Your task to perform on an android device: Clear the shopping cart on amazon.com. Add "sony triple a" to the cart on amazon.com Image 0: 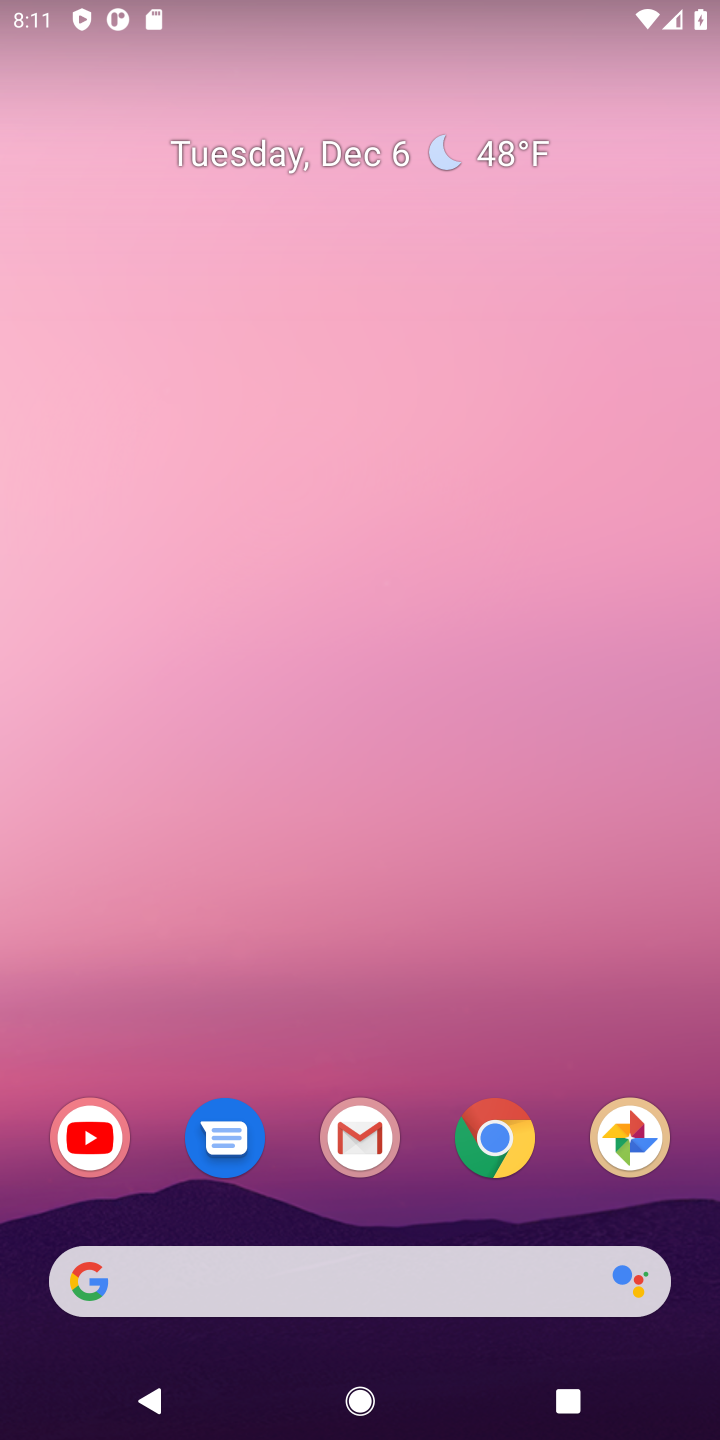
Step 0: click (497, 1137)
Your task to perform on an android device: Clear the shopping cart on amazon.com. Add "sony triple a" to the cart on amazon.com Image 1: 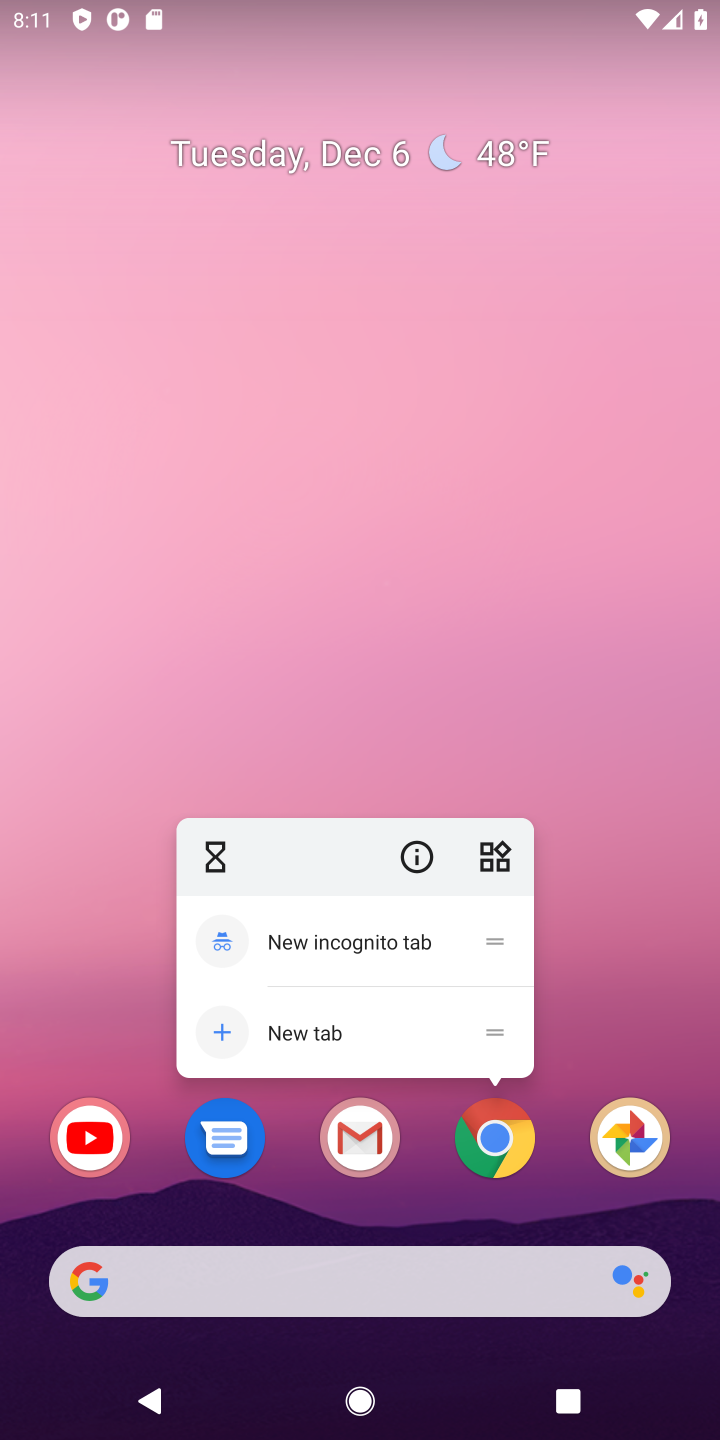
Step 1: click (497, 1146)
Your task to perform on an android device: Clear the shopping cart on amazon.com. Add "sony triple a" to the cart on amazon.com Image 2: 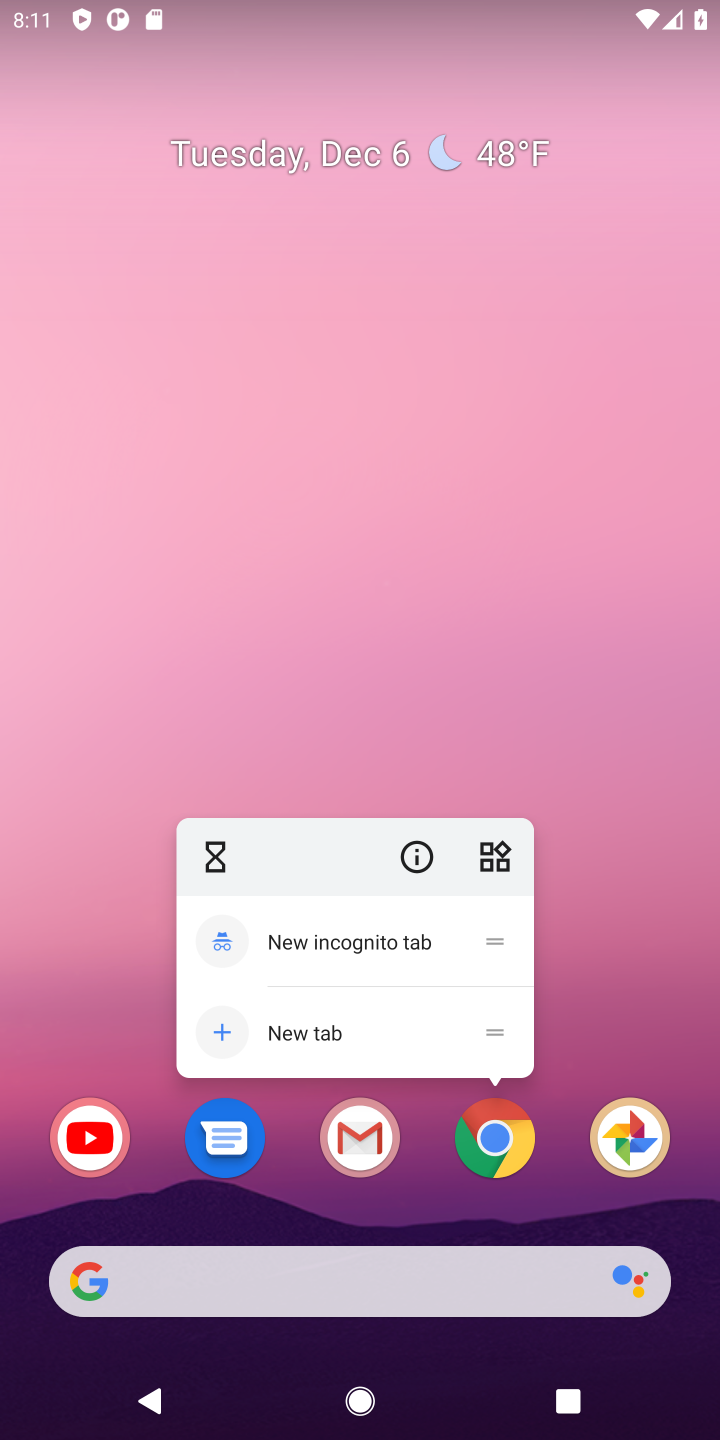
Step 2: click (505, 1152)
Your task to perform on an android device: Clear the shopping cart on amazon.com. Add "sony triple a" to the cart on amazon.com Image 3: 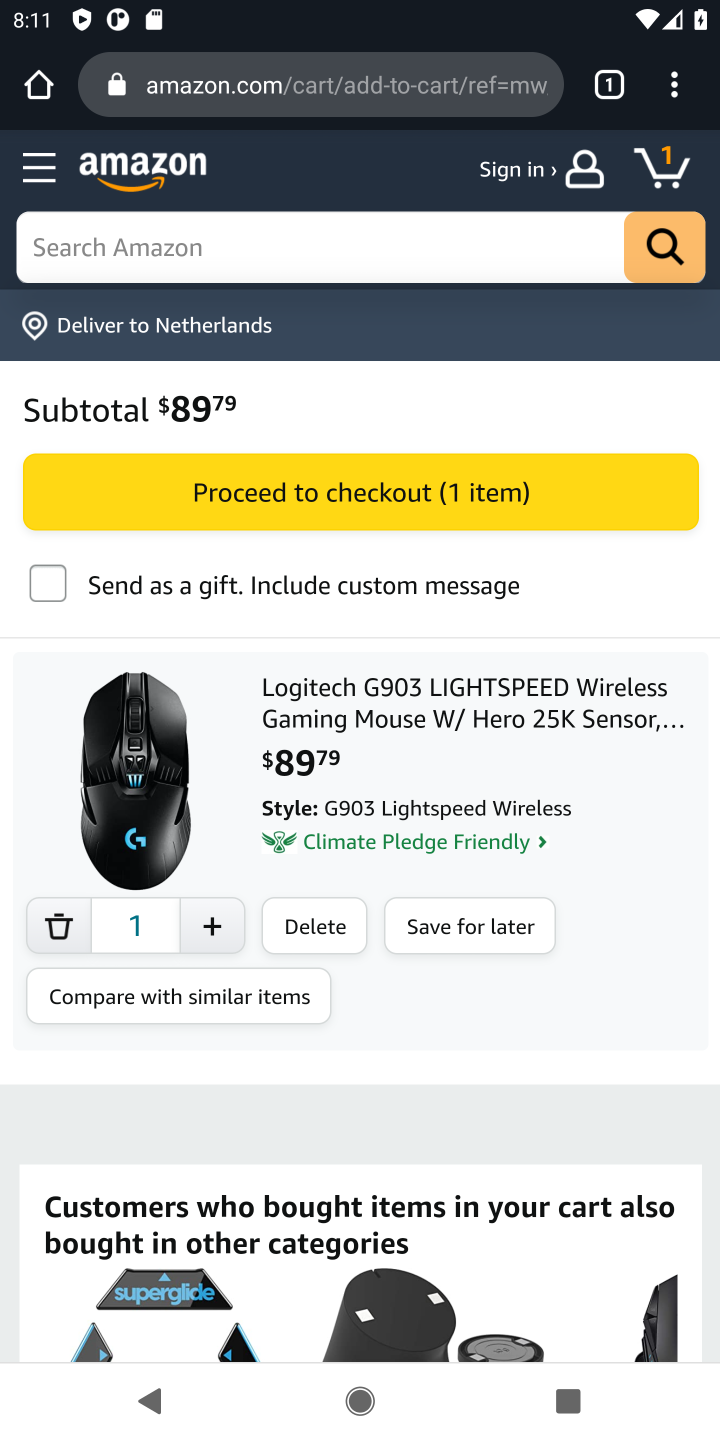
Step 3: click (317, 926)
Your task to perform on an android device: Clear the shopping cart on amazon.com. Add "sony triple a" to the cart on amazon.com Image 4: 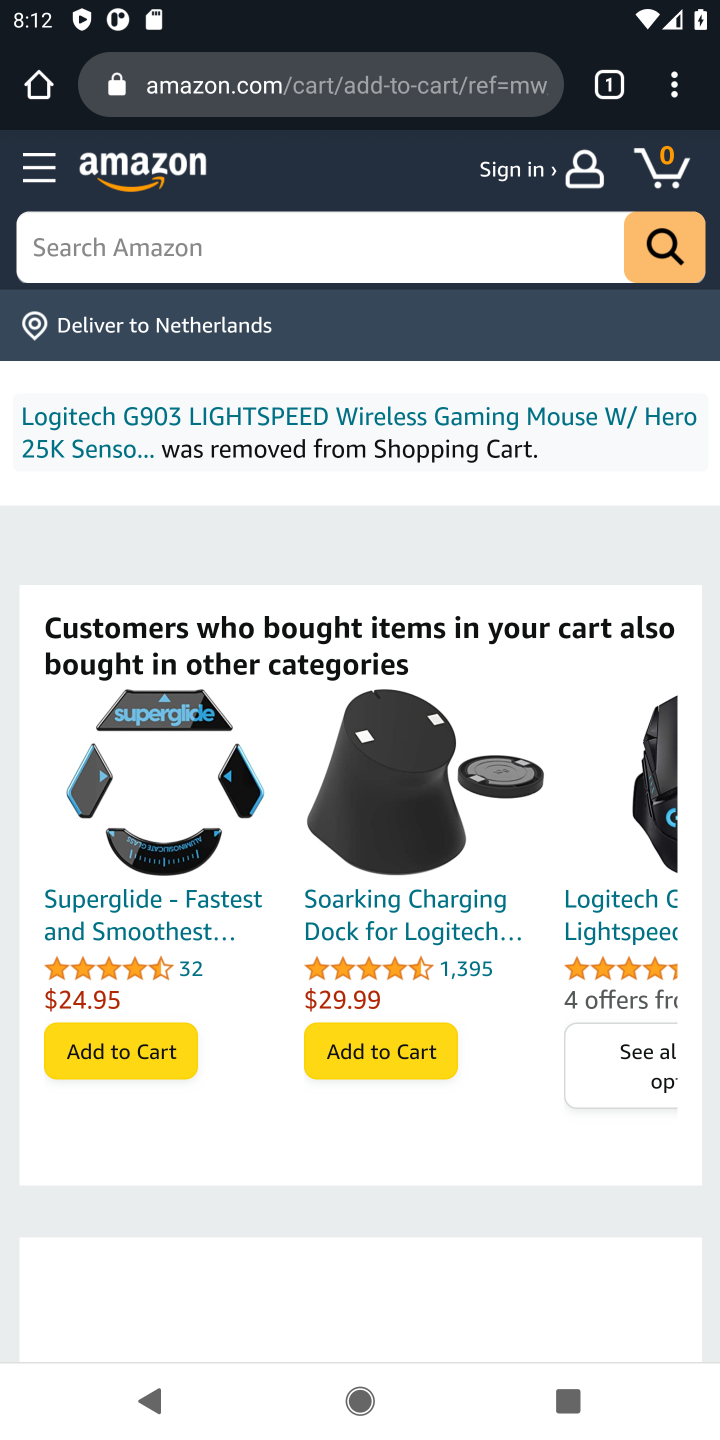
Step 4: click (224, 263)
Your task to perform on an android device: Clear the shopping cart on amazon.com. Add "sony triple a" to the cart on amazon.com Image 5: 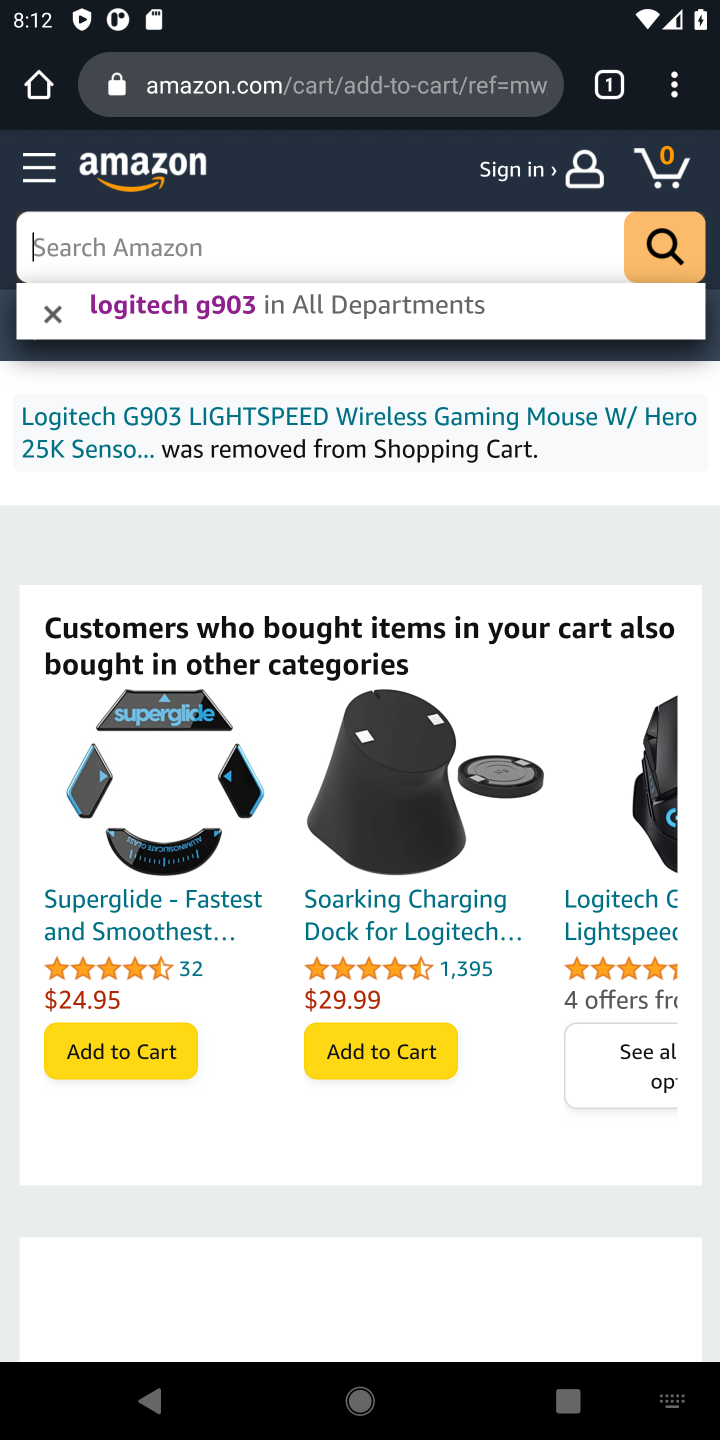
Step 5: type "sony triple a"
Your task to perform on an android device: Clear the shopping cart on amazon.com. Add "sony triple a" to the cart on amazon.com Image 6: 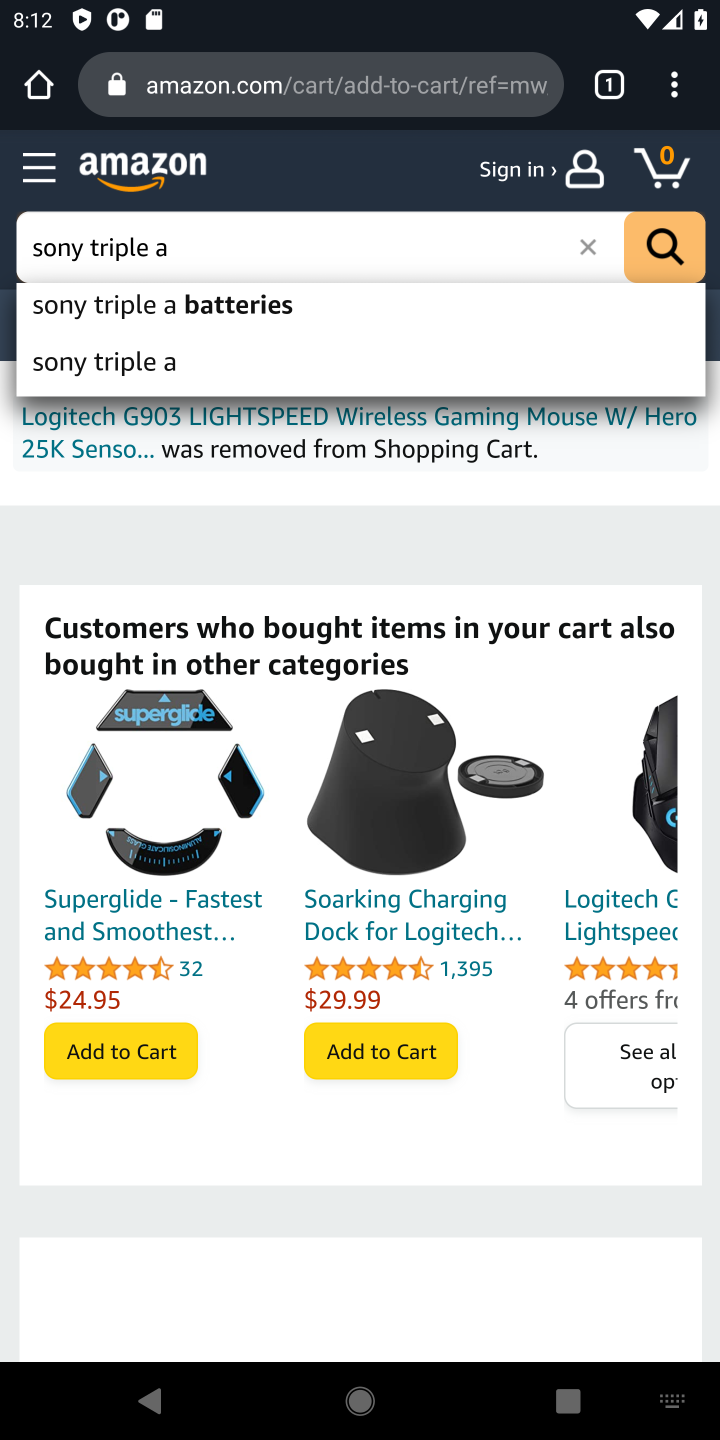
Step 6: click (175, 305)
Your task to perform on an android device: Clear the shopping cart on amazon.com. Add "sony triple a" to the cart on amazon.com Image 7: 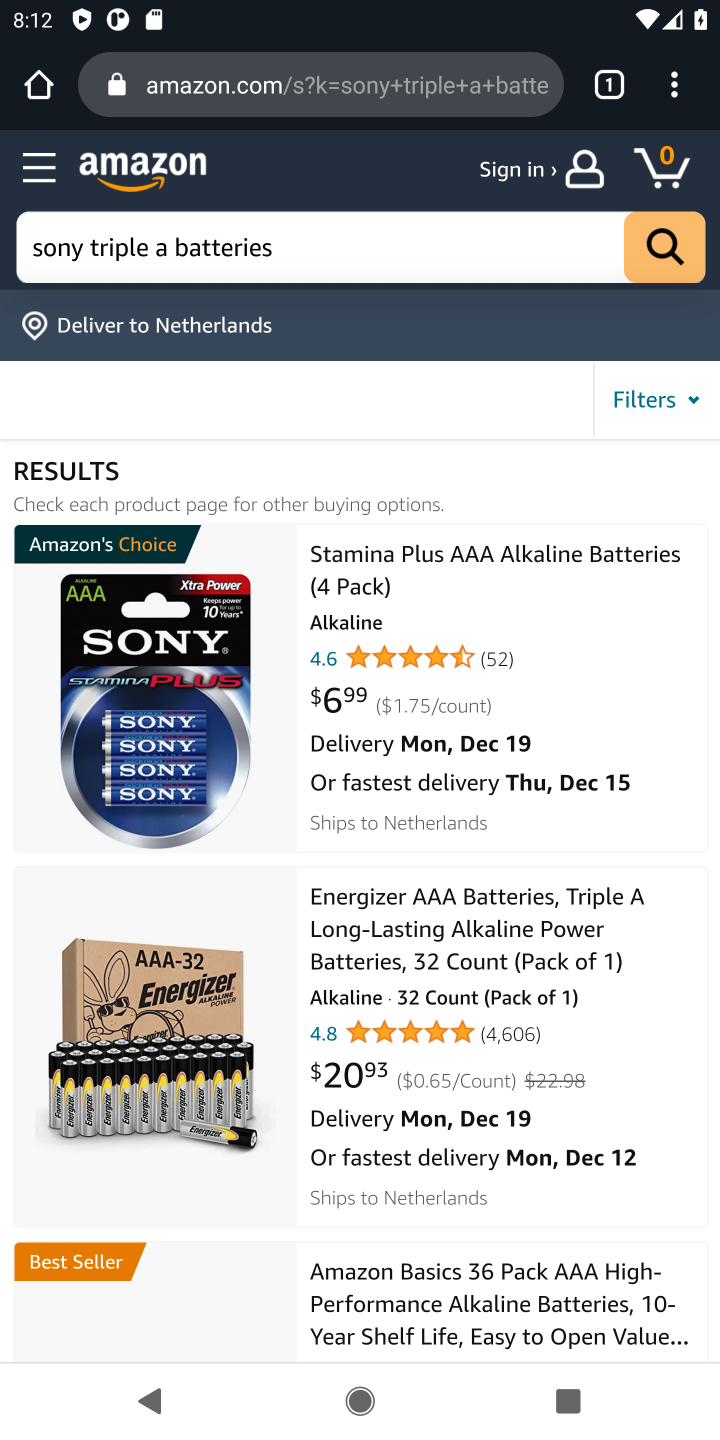
Step 7: click (395, 589)
Your task to perform on an android device: Clear the shopping cart on amazon.com. Add "sony triple a" to the cart on amazon.com Image 8: 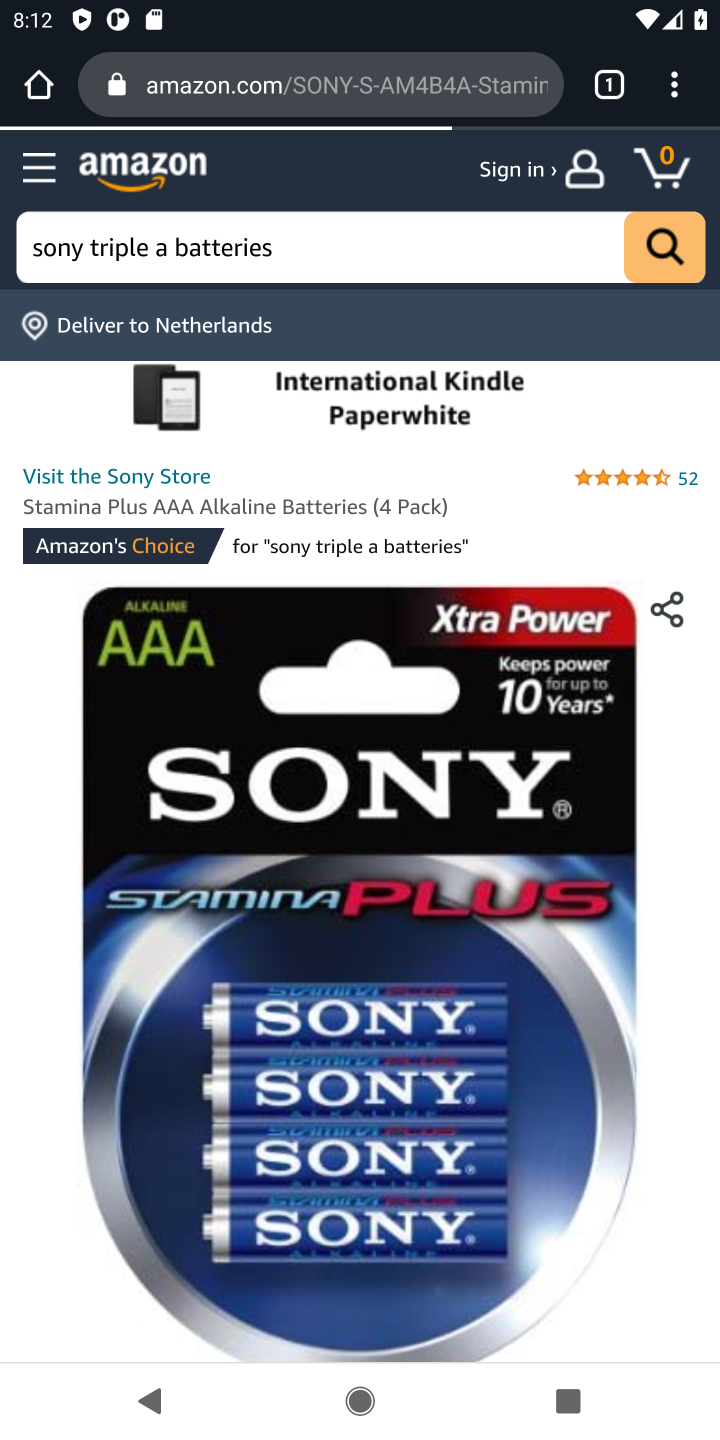
Step 8: drag from (375, 986) to (354, 432)
Your task to perform on an android device: Clear the shopping cart on amazon.com. Add "sony triple a" to the cart on amazon.com Image 9: 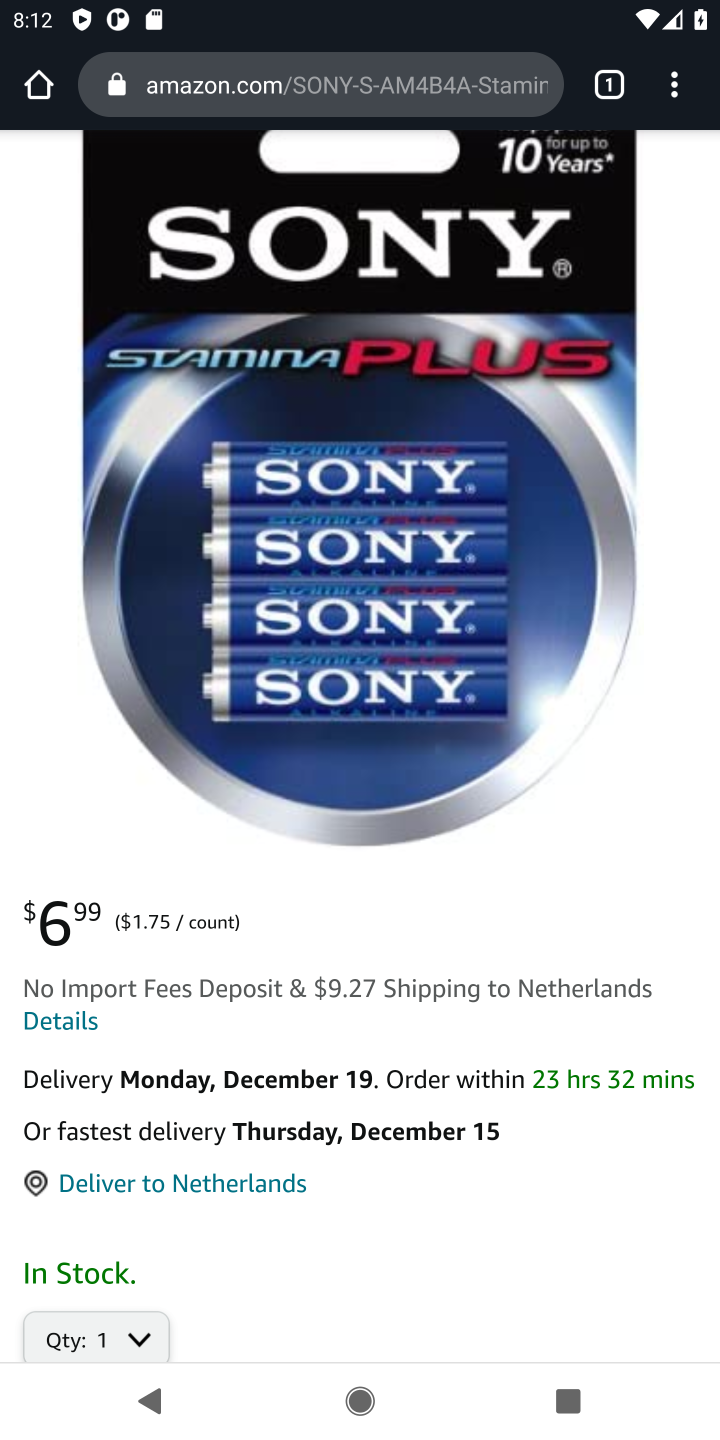
Step 9: drag from (324, 1051) to (292, 536)
Your task to perform on an android device: Clear the shopping cart on amazon.com. Add "sony triple a" to the cart on amazon.com Image 10: 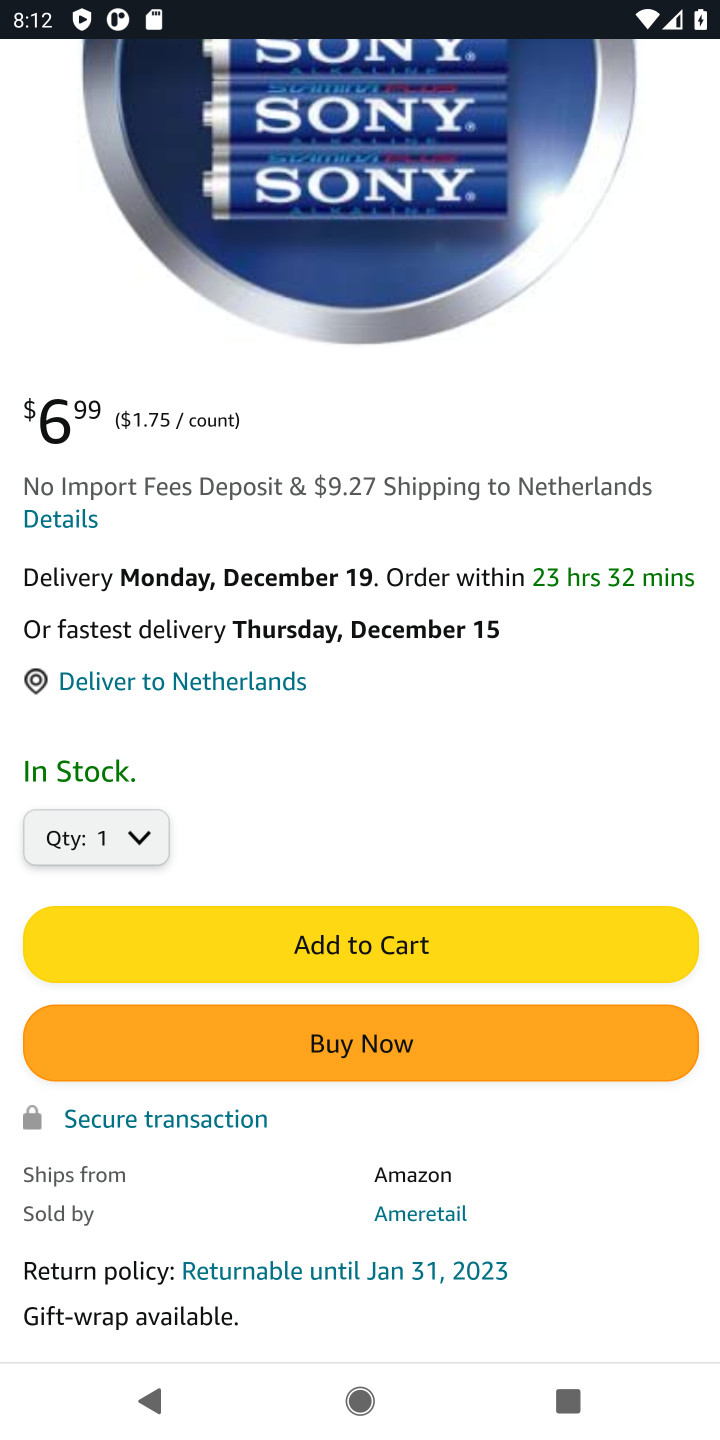
Step 10: click (307, 943)
Your task to perform on an android device: Clear the shopping cart on amazon.com. Add "sony triple a" to the cart on amazon.com Image 11: 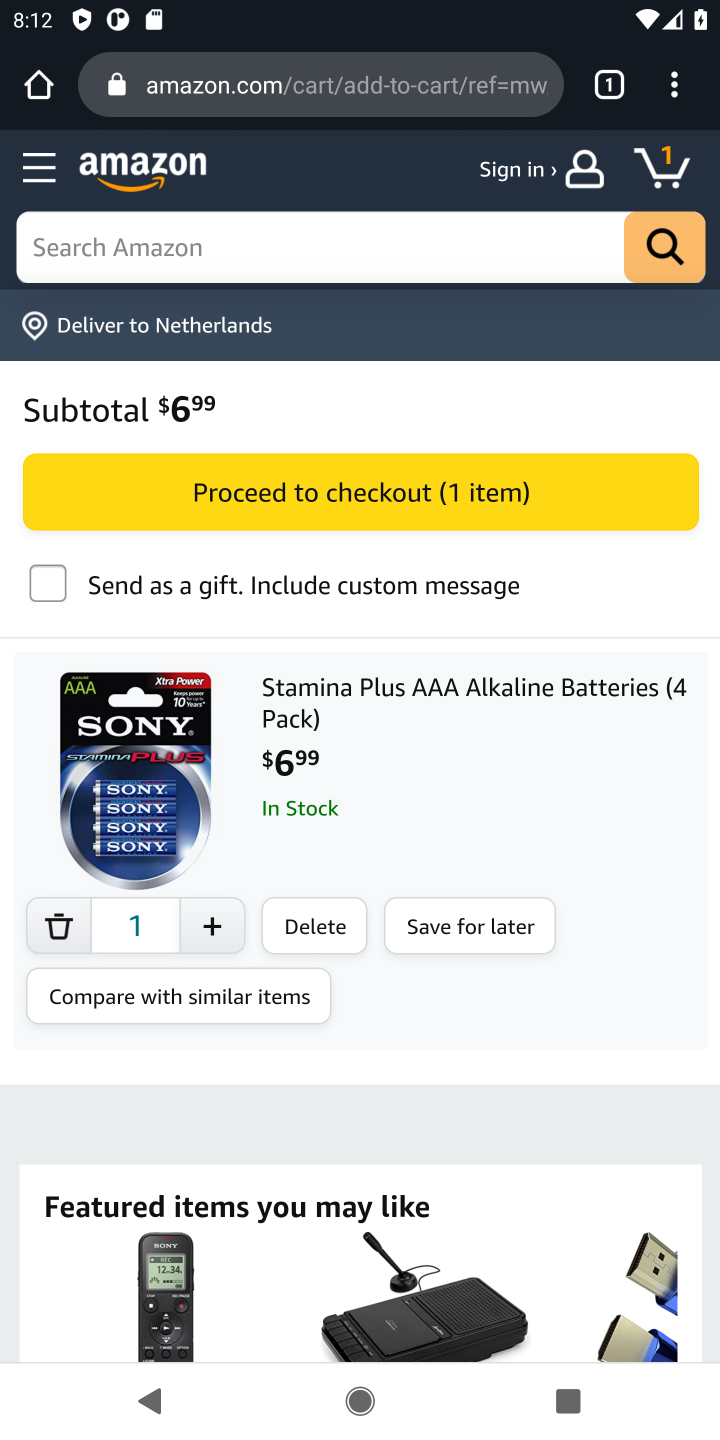
Step 11: task complete